Your task to perform on an android device: Open display settings Image 0: 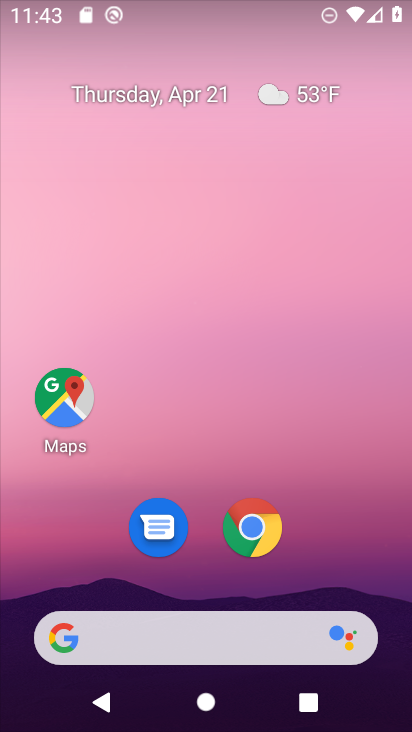
Step 0: drag from (353, 557) to (381, 156)
Your task to perform on an android device: Open display settings Image 1: 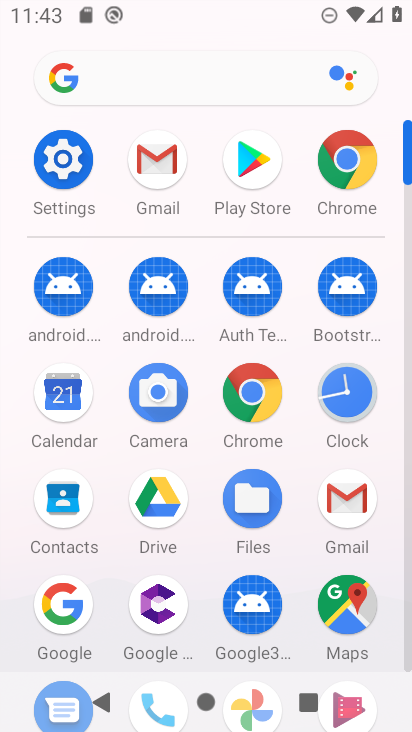
Step 1: click (70, 179)
Your task to perform on an android device: Open display settings Image 2: 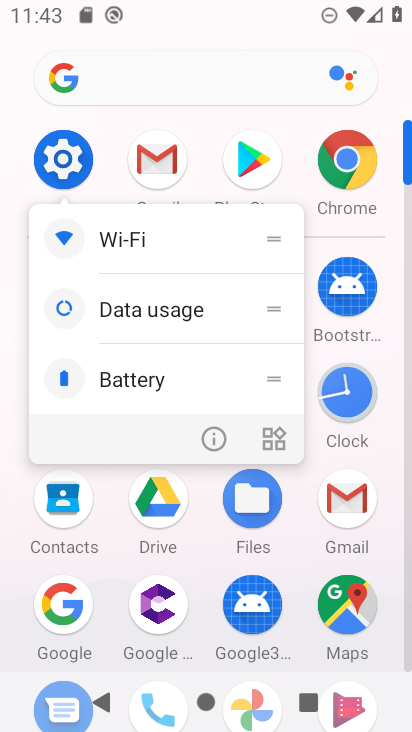
Step 2: click (71, 179)
Your task to perform on an android device: Open display settings Image 3: 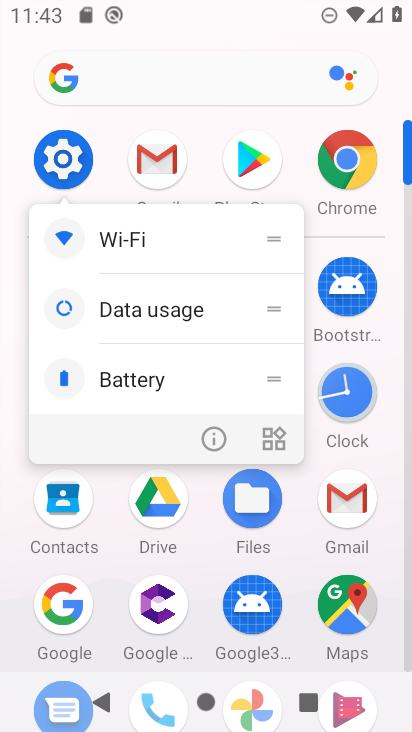
Step 3: click (73, 180)
Your task to perform on an android device: Open display settings Image 4: 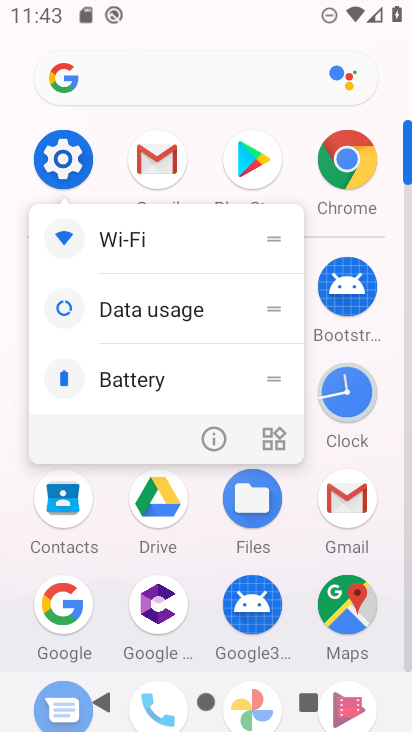
Step 4: click (73, 180)
Your task to perform on an android device: Open display settings Image 5: 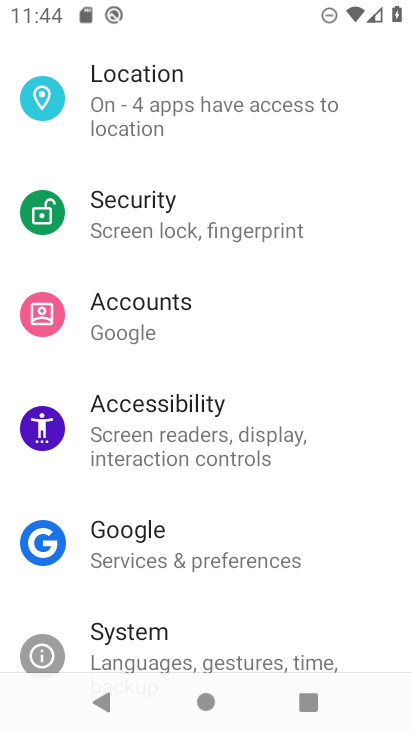
Step 5: drag from (362, 374) to (362, 457)
Your task to perform on an android device: Open display settings Image 6: 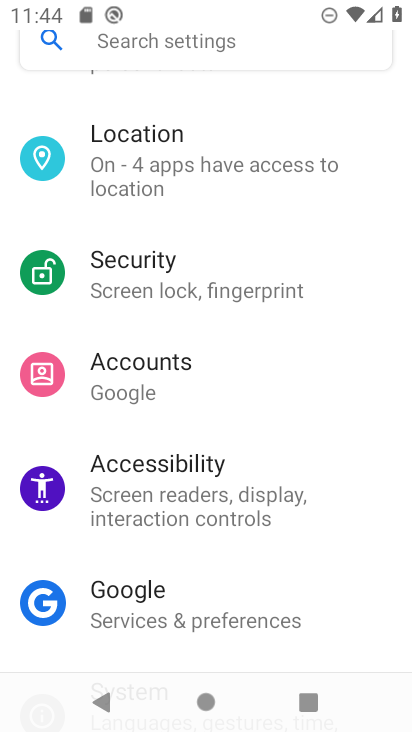
Step 6: drag from (368, 359) to (372, 471)
Your task to perform on an android device: Open display settings Image 7: 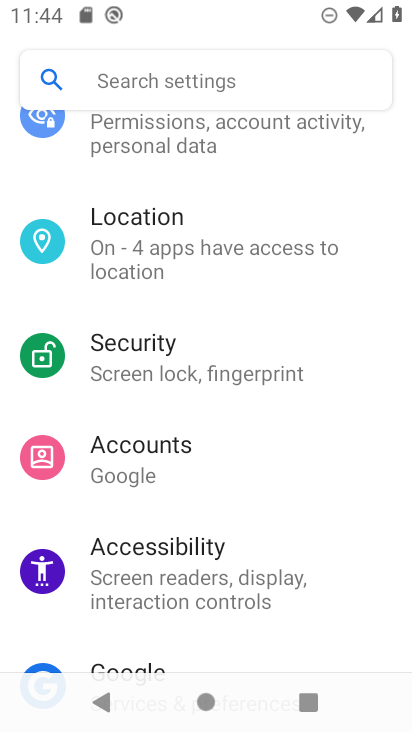
Step 7: drag from (371, 341) to (370, 473)
Your task to perform on an android device: Open display settings Image 8: 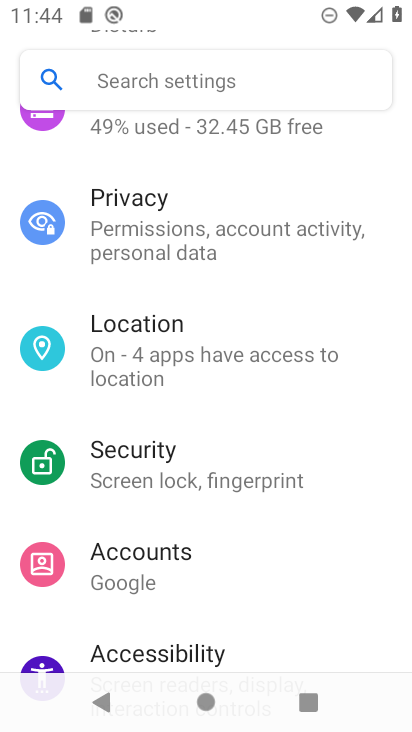
Step 8: drag from (373, 354) to (353, 499)
Your task to perform on an android device: Open display settings Image 9: 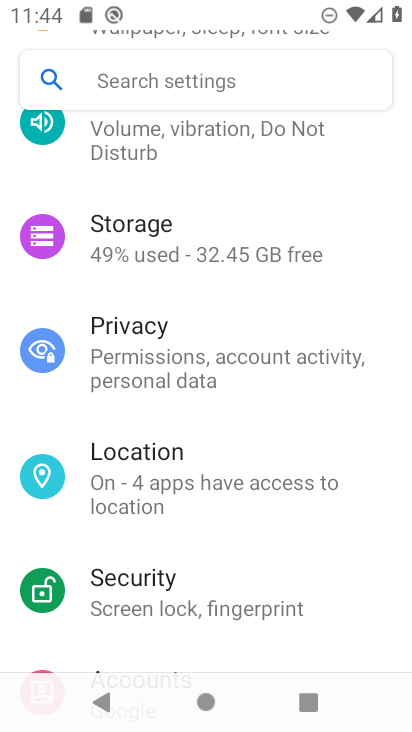
Step 9: drag from (360, 317) to (354, 442)
Your task to perform on an android device: Open display settings Image 10: 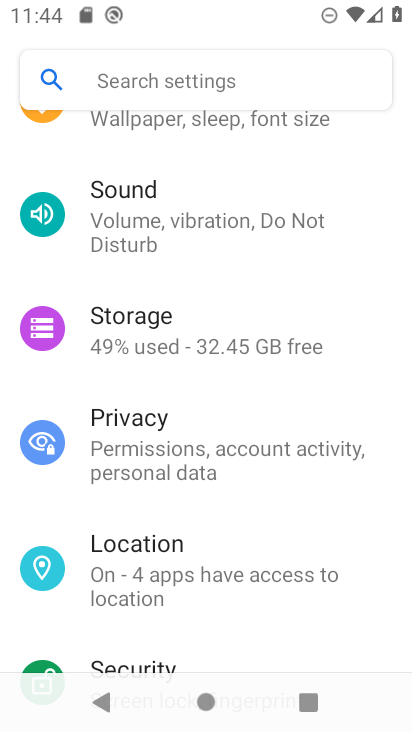
Step 10: drag from (368, 332) to (371, 460)
Your task to perform on an android device: Open display settings Image 11: 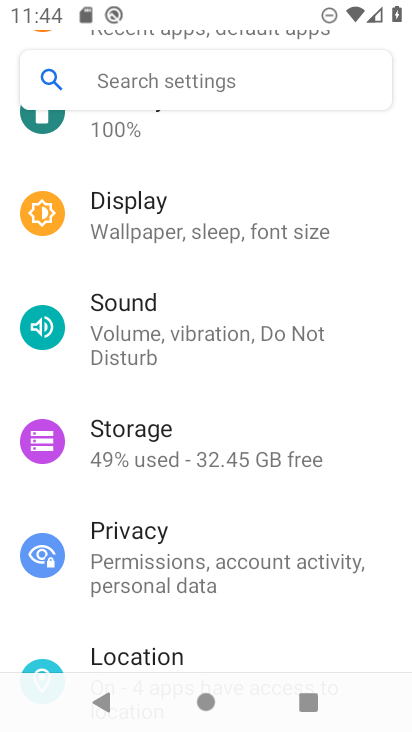
Step 11: drag from (361, 342) to (361, 453)
Your task to perform on an android device: Open display settings Image 12: 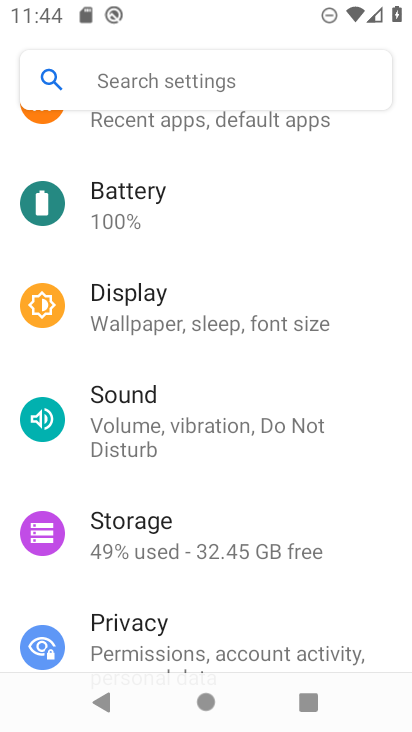
Step 12: drag from (365, 339) to (357, 447)
Your task to perform on an android device: Open display settings Image 13: 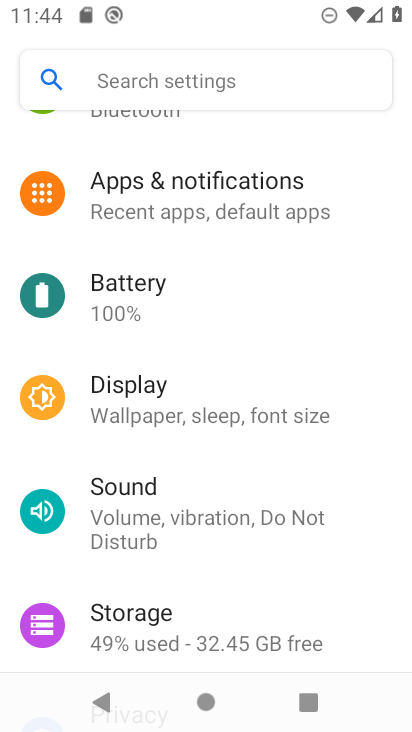
Step 13: click (289, 422)
Your task to perform on an android device: Open display settings Image 14: 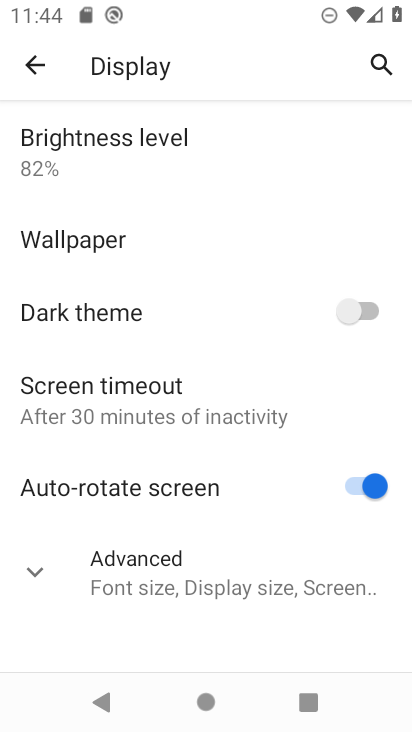
Step 14: click (215, 568)
Your task to perform on an android device: Open display settings Image 15: 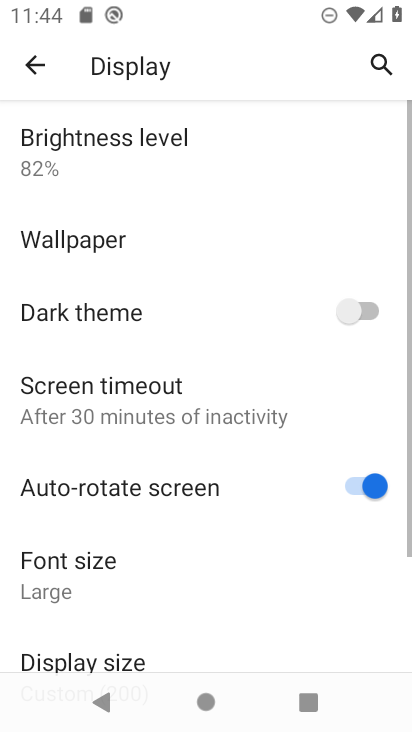
Step 15: task complete